Your task to perform on an android device: create a new album in the google photos Image 0: 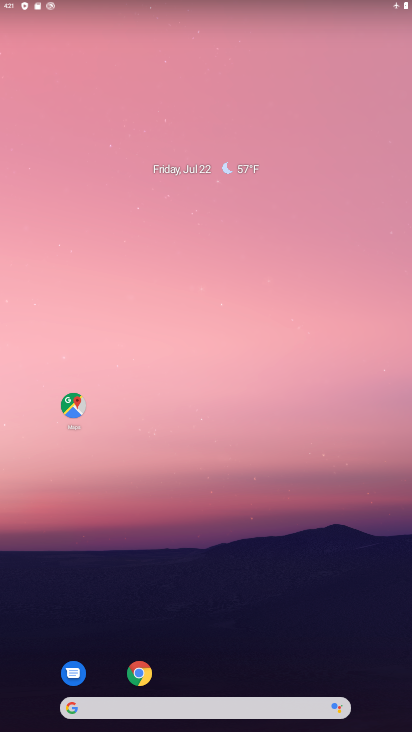
Step 0: drag from (334, 629) to (304, 198)
Your task to perform on an android device: create a new album in the google photos Image 1: 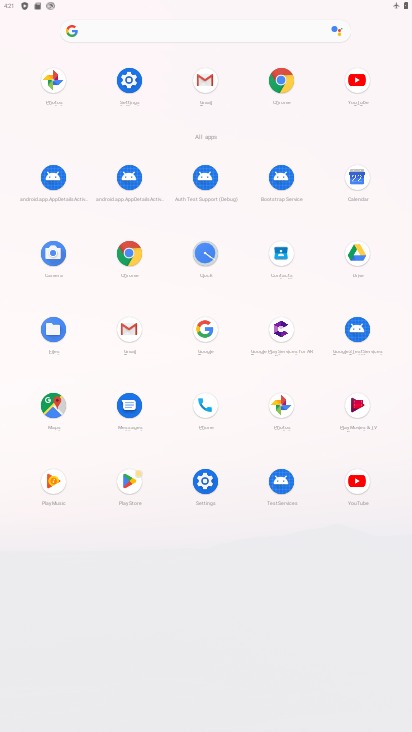
Step 1: click (283, 405)
Your task to perform on an android device: create a new album in the google photos Image 2: 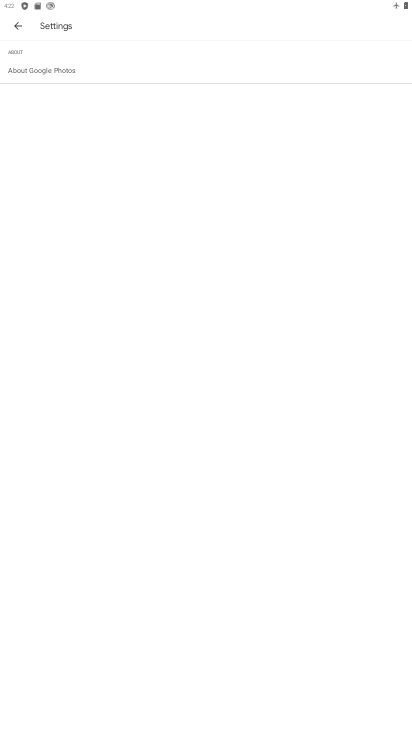
Step 2: click (16, 24)
Your task to perform on an android device: create a new album in the google photos Image 3: 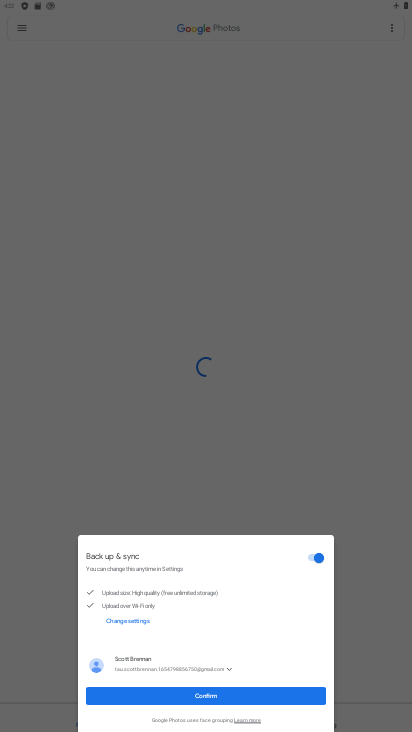
Step 3: click (261, 693)
Your task to perform on an android device: create a new album in the google photos Image 4: 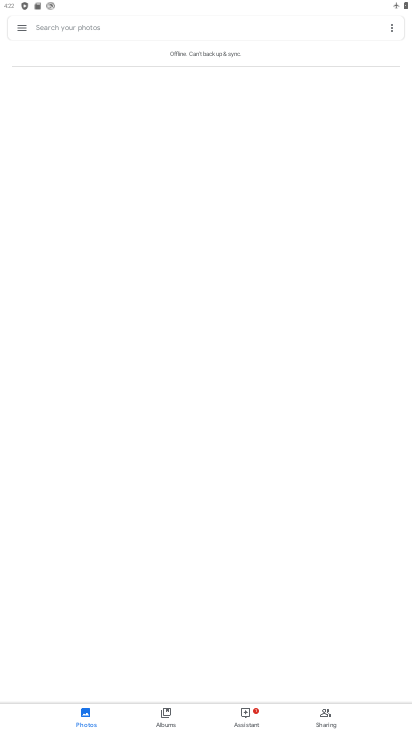
Step 4: click (240, 710)
Your task to perform on an android device: create a new album in the google photos Image 5: 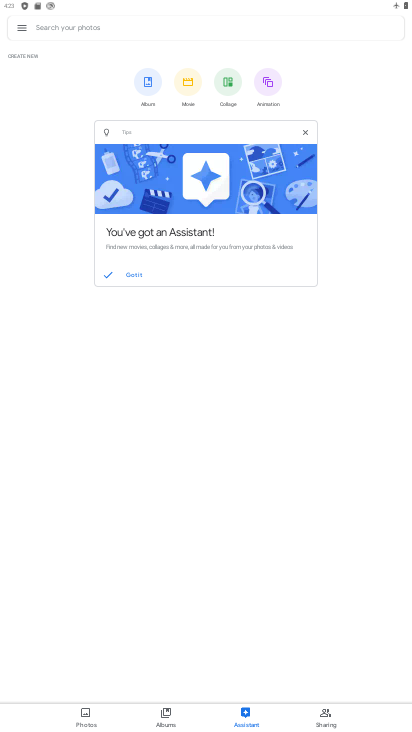
Step 5: task complete